Your task to perform on an android device: star an email in the gmail app Image 0: 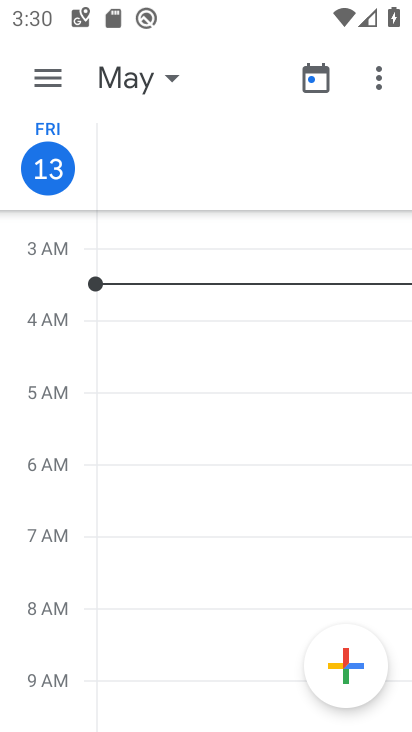
Step 0: press back button
Your task to perform on an android device: star an email in the gmail app Image 1: 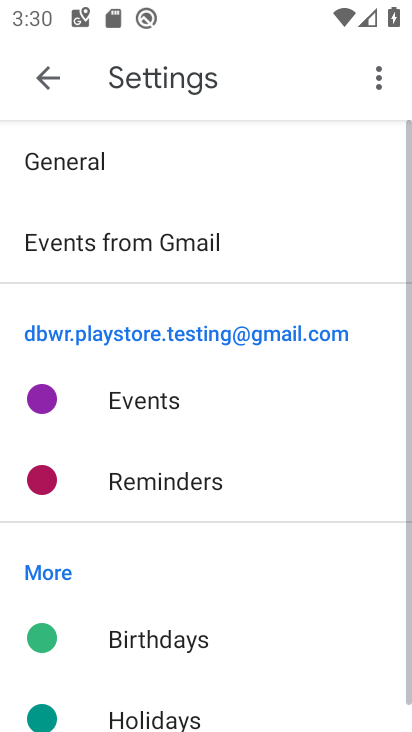
Step 1: press back button
Your task to perform on an android device: star an email in the gmail app Image 2: 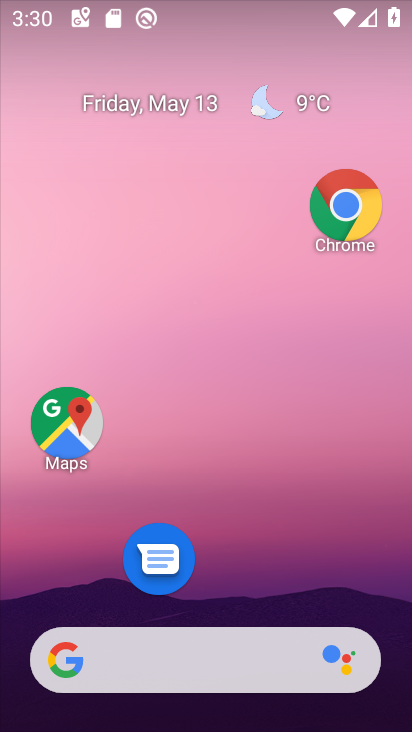
Step 2: drag from (289, 575) to (319, 32)
Your task to perform on an android device: star an email in the gmail app Image 3: 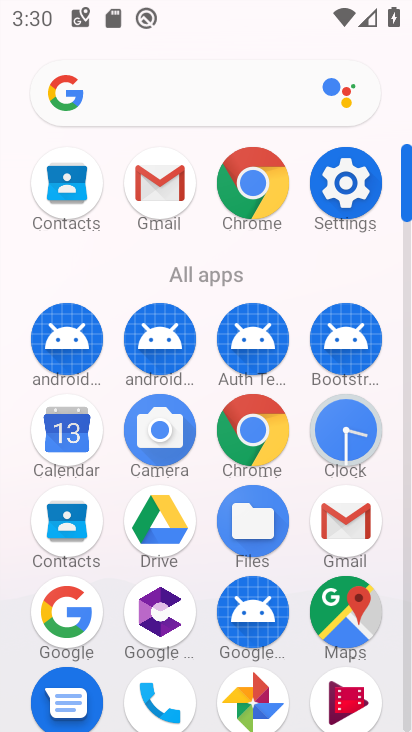
Step 3: click (165, 186)
Your task to perform on an android device: star an email in the gmail app Image 4: 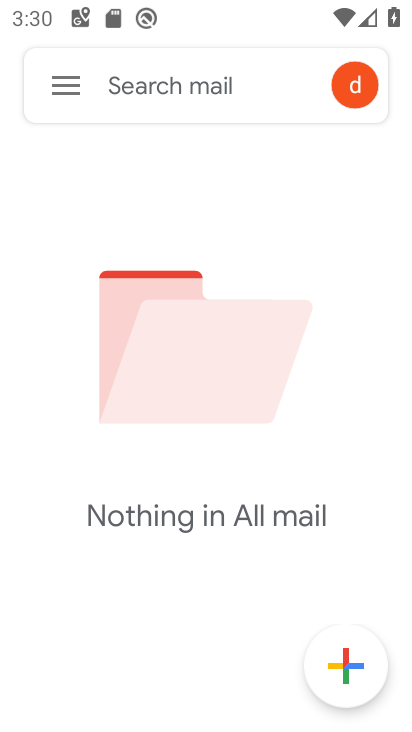
Step 4: task complete